Your task to perform on an android device: What's the weather? Image 0: 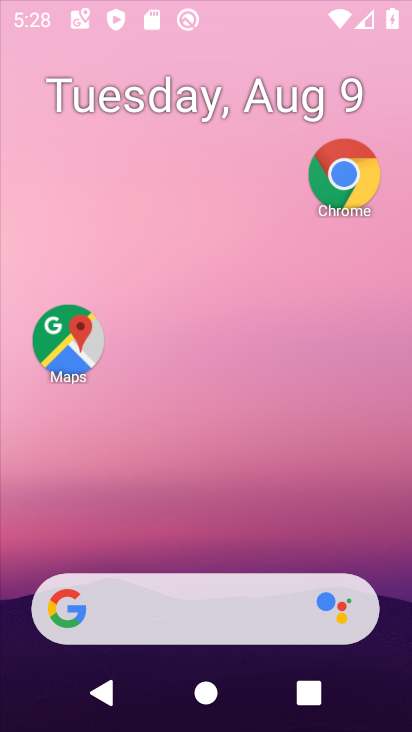
Step 0: drag from (251, 620) to (272, 219)
Your task to perform on an android device: What's the weather? Image 1: 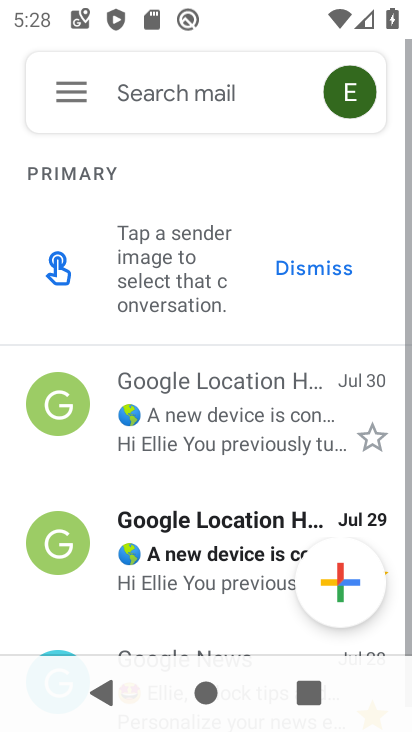
Step 1: drag from (179, 543) to (189, 374)
Your task to perform on an android device: What's the weather? Image 2: 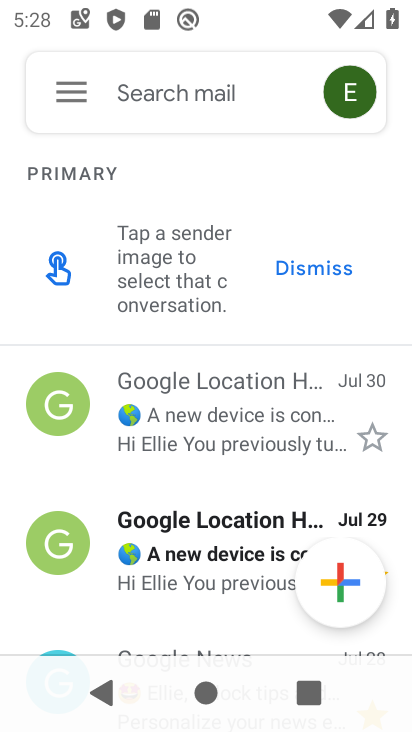
Step 2: drag from (163, 566) to (227, 317)
Your task to perform on an android device: What's the weather? Image 3: 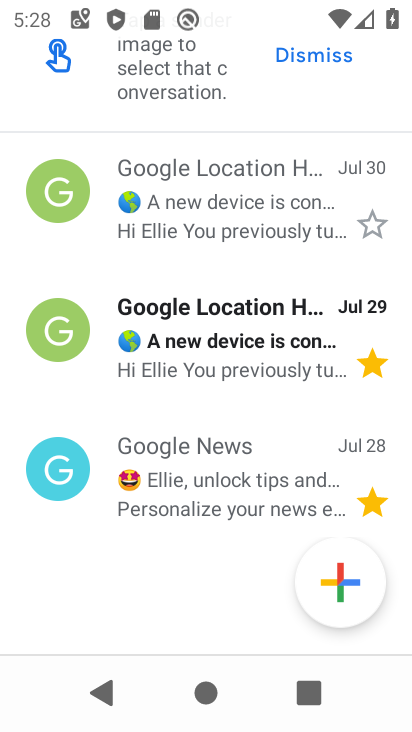
Step 3: drag from (249, 587) to (271, 364)
Your task to perform on an android device: What's the weather? Image 4: 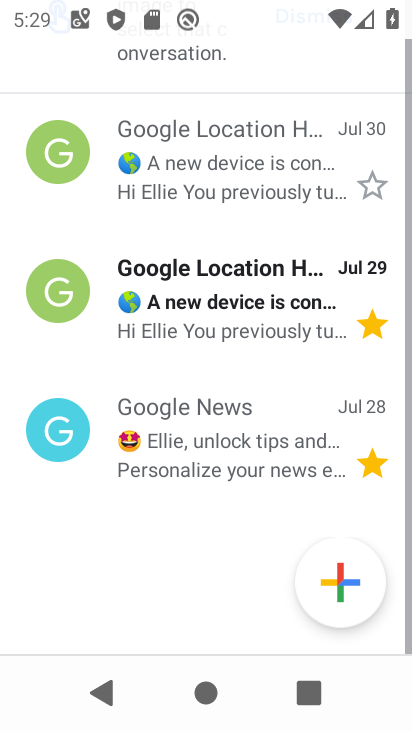
Step 4: drag from (248, 316) to (359, 667)
Your task to perform on an android device: What's the weather? Image 5: 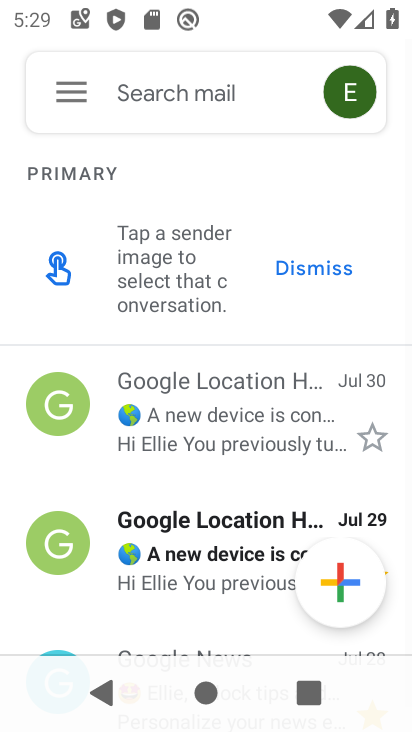
Step 5: drag from (356, 196) to (410, 528)
Your task to perform on an android device: What's the weather? Image 6: 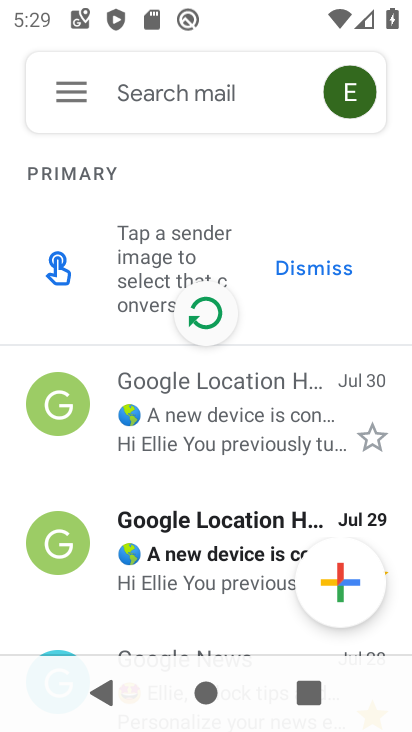
Step 6: press home button
Your task to perform on an android device: What's the weather? Image 7: 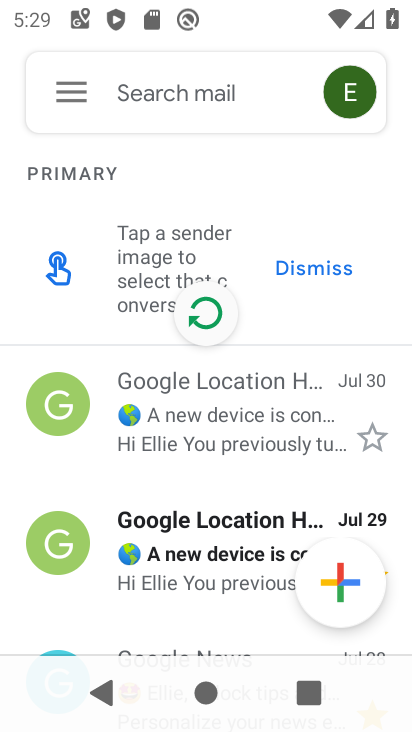
Step 7: drag from (410, 528) to (395, 487)
Your task to perform on an android device: What's the weather? Image 8: 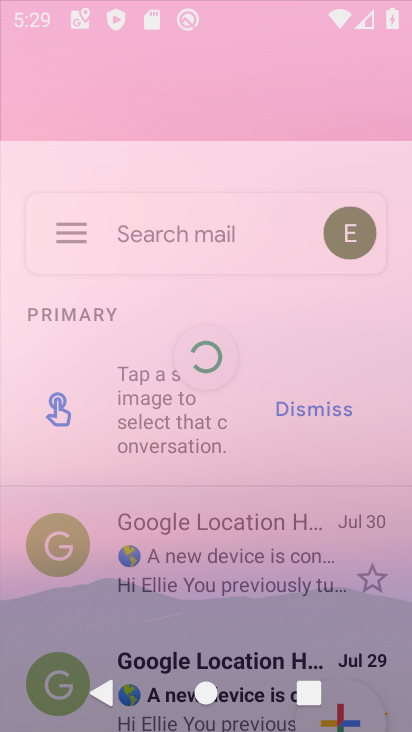
Step 8: drag from (255, 570) to (308, 263)
Your task to perform on an android device: What's the weather? Image 9: 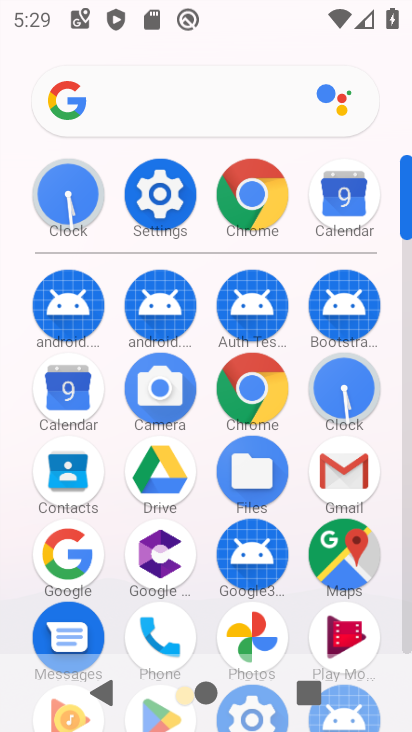
Step 9: drag from (192, 603) to (228, 401)
Your task to perform on an android device: What's the weather? Image 10: 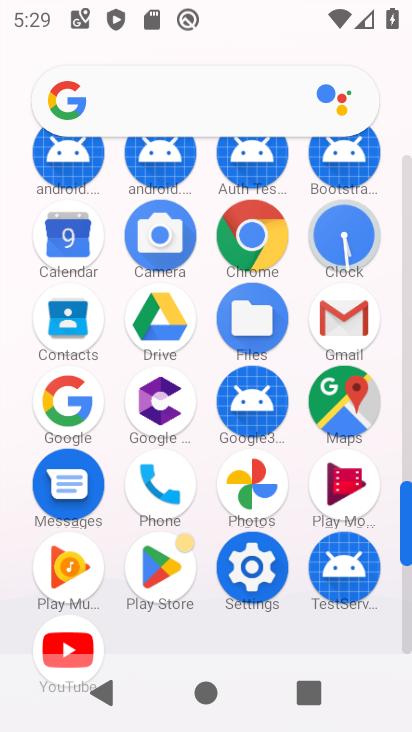
Step 10: click (155, 576)
Your task to perform on an android device: What's the weather? Image 11: 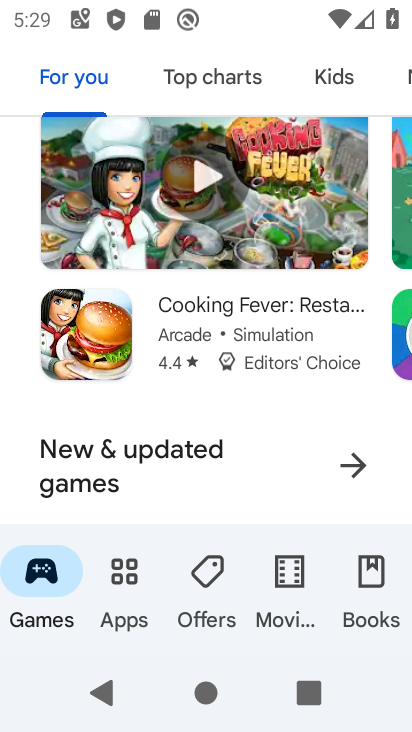
Step 11: press home button
Your task to perform on an android device: What's the weather? Image 12: 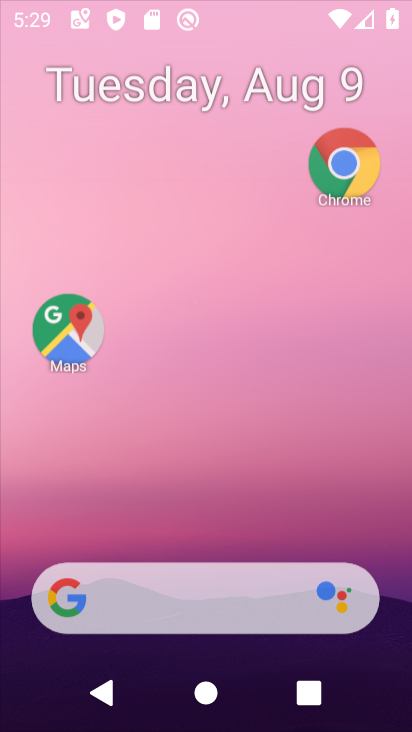
Step 12: drag from (246, 522) to (274, 151)
Your task to perform on an android device: What's the weather? Image 13: 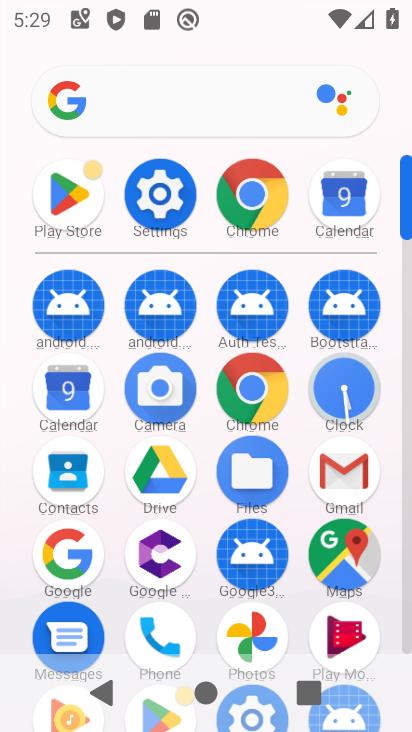
Step 13: click (220, 91)
Your task to perform on an android device: What's the weather? Image 14: 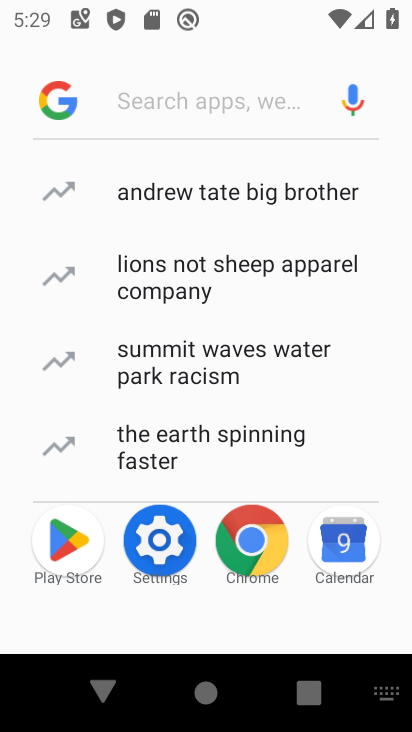
Step 14: type " weather?"
Your task to perform on an android device: What's the weather? Image 15: 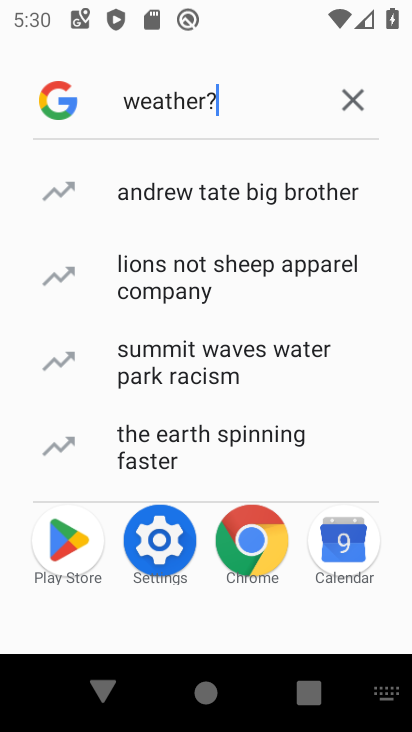
Step 15: type ""
Your task to perform on an android device: What's the weather? Image 16: 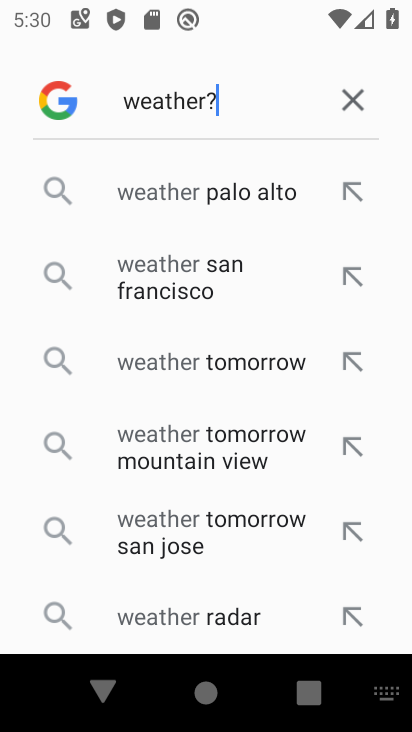
Step 16: task complete